Your task to perform on an android device: open the mobile data screen to see how much data has been used Image 0: 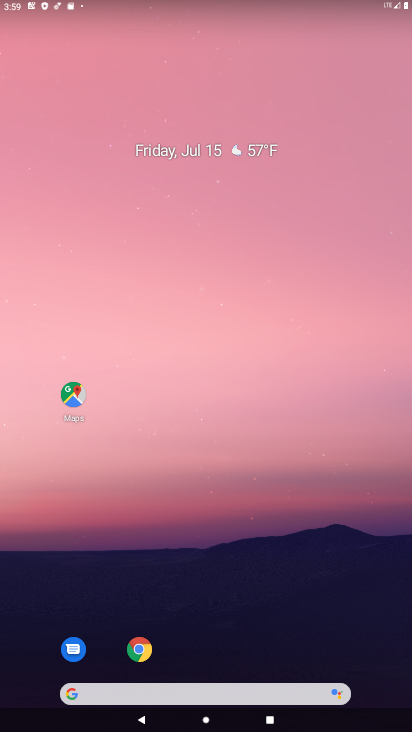
Step 0: drag from (233, 724) to (230, 261)
Your task to perform on an android device: open the mobile data screen to see how much data has been used Image 1: 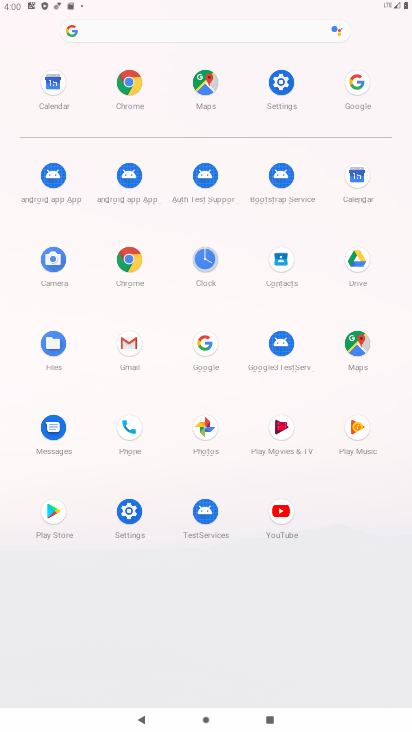
Step 1: click (131, 508)
Your task to perform on an android device: open the mobile data screen to see how much data has been used Image 2: 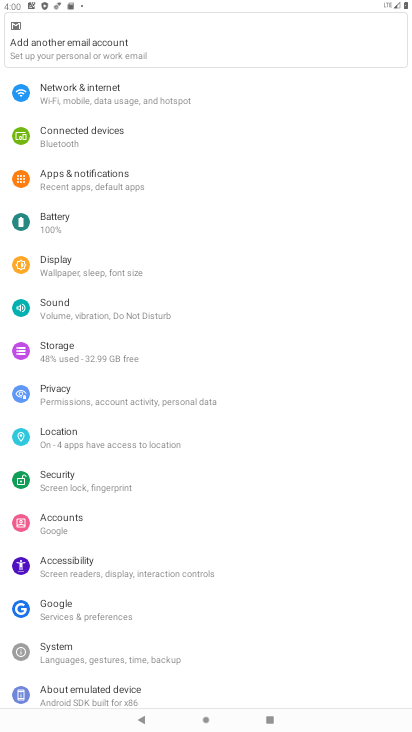
Step 2: click (47, 91)
Your task to perform on an android device: open the mobile data screen to see how much data has been used Image 3: 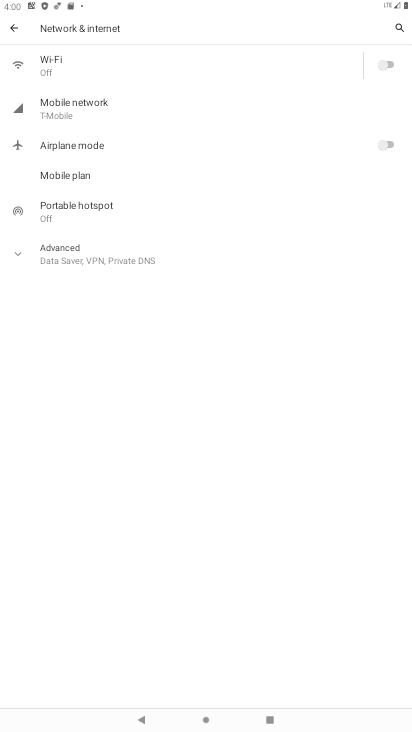
Step 3: click (58, 105)
Your task to perform on an android device: open the mobile data screen to see how much data has been used Image 4: 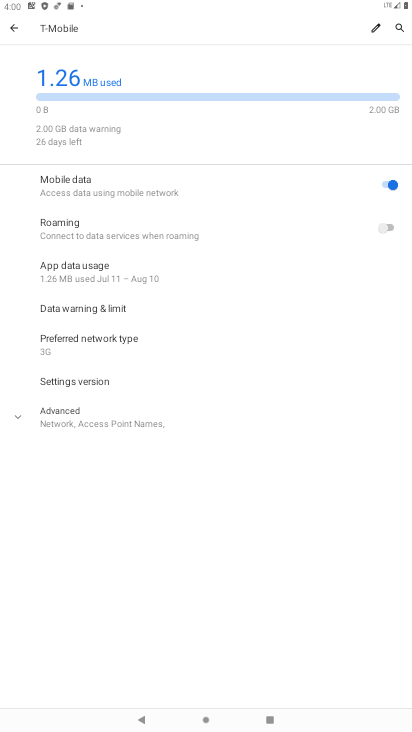
Step 4: click (65, 269)
Your task to perform on an android device: open the mobile data screen to see how much data has been used Image 5: 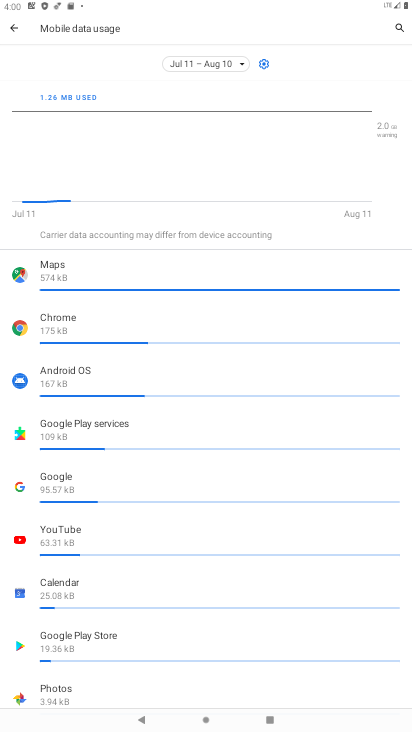
Step 5: task complete